Your task to perform on an android device: Open Chrome and go to settings Image 0: 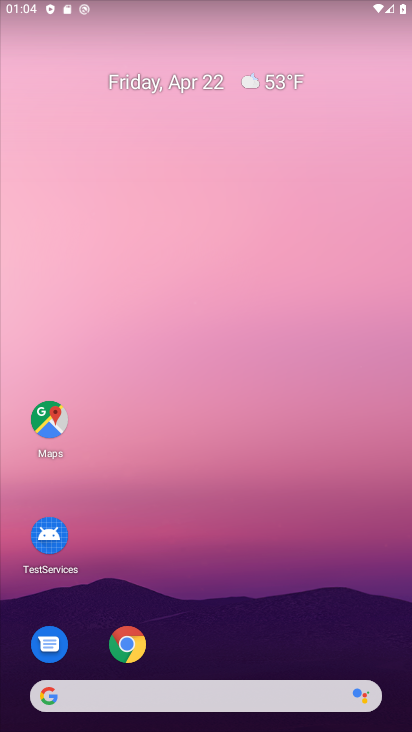
Step 0: drag from (278, 621) to (231, 113)
Your task to perform on an android device: Open Chrome and go to settings Image 1: 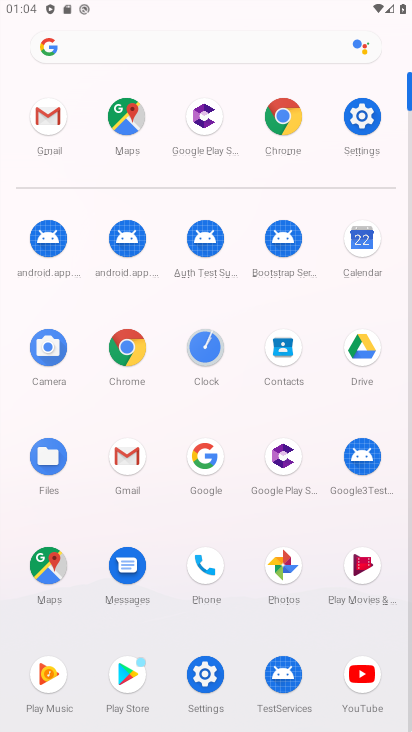
Step 1: click (279, 119)
Your task to perform on an android device: Open Chrome and go to settings Image 2: 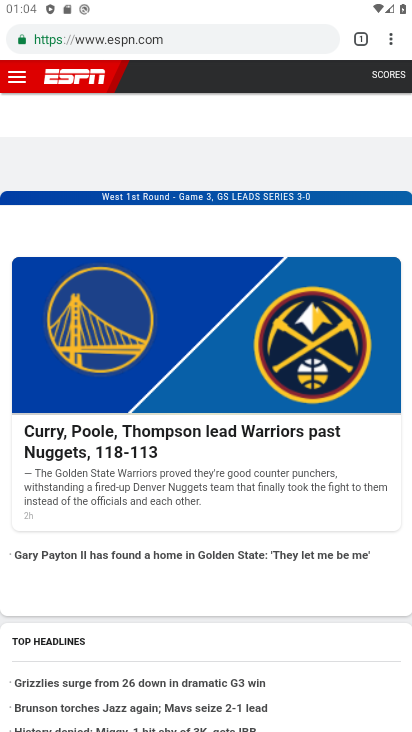
Step 2: task complete